Your task to perform on an android device: Open battery settings Image 0: 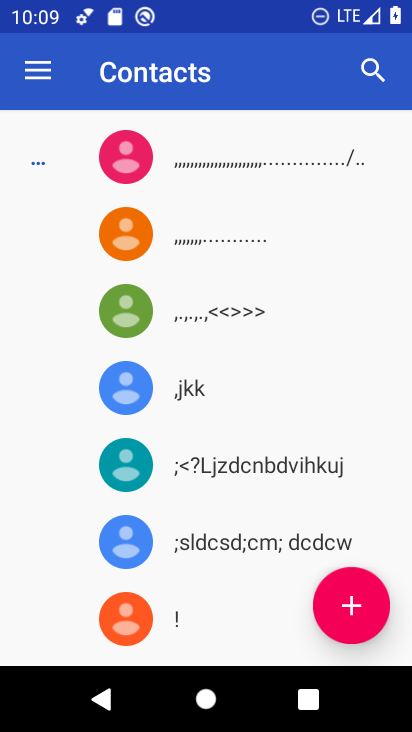
Step 0: press home button
Your task to perform on an android device: Open battery settings Image 1: 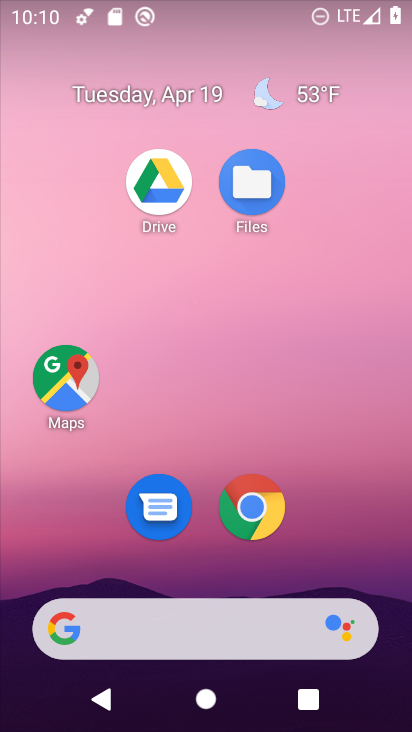
Step 1: drag from (351, 545) to (352, 137)
Your task to perform on an android device: Open battery settings Image 2: 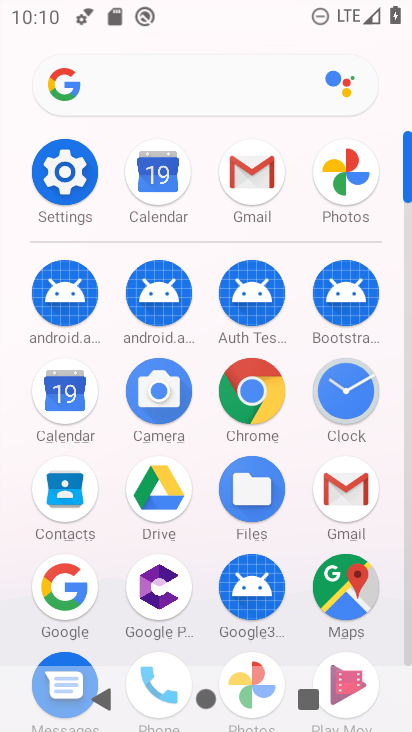
Step 2: click (70, 176)
Your task to perform on an android device: Open battery settings Image 3: 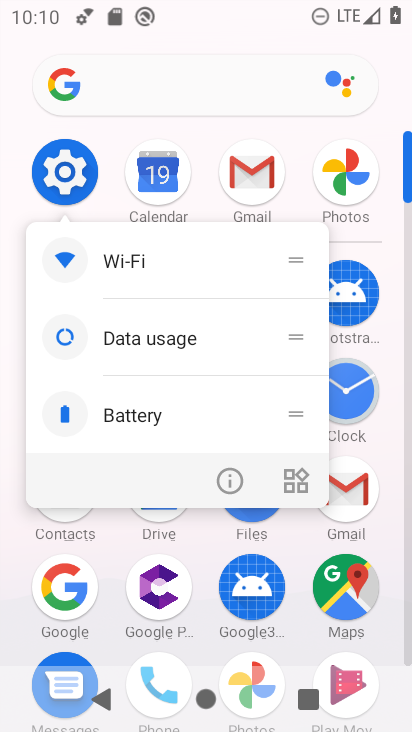
Step 3: click (69, 175)
Your task to perform on an android device: Open battery settings Image 4: 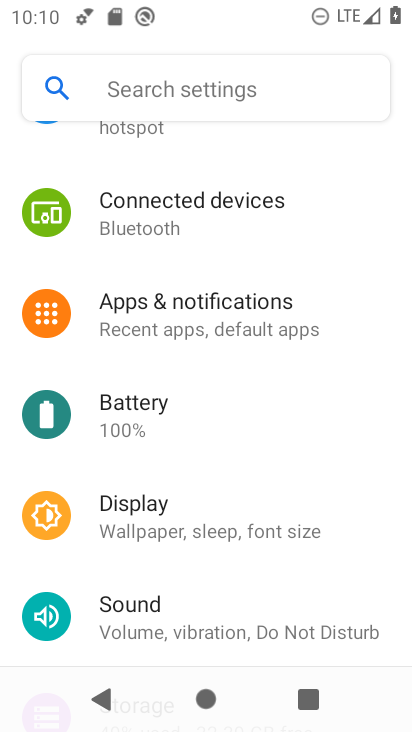
Step 4: click (117, 404)
Your task to perform on an android device: Open battery settings Image 5: 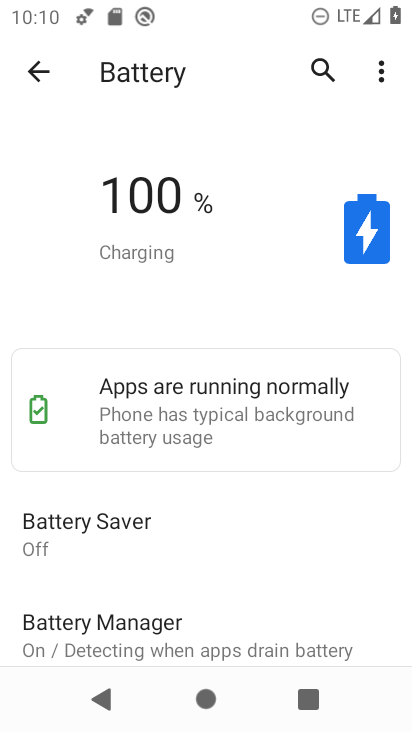
Step 5: task complete